Your task to perform on an android device: turn smart compose on in the gmail app Image 0: 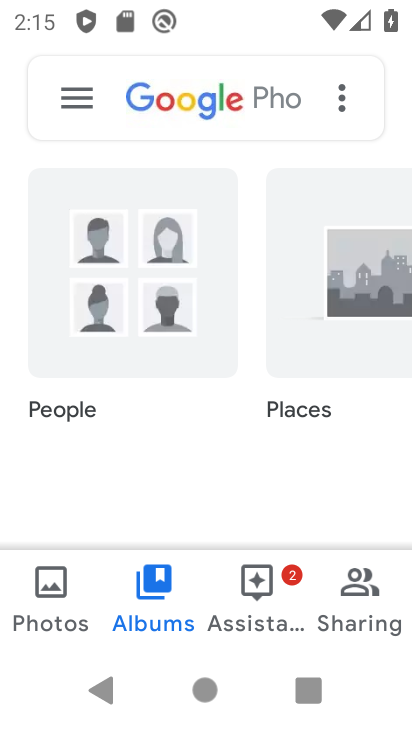
Step 0: press home button
Your task to perform on an android device: turn smart compose on in the gmail app Image 1: 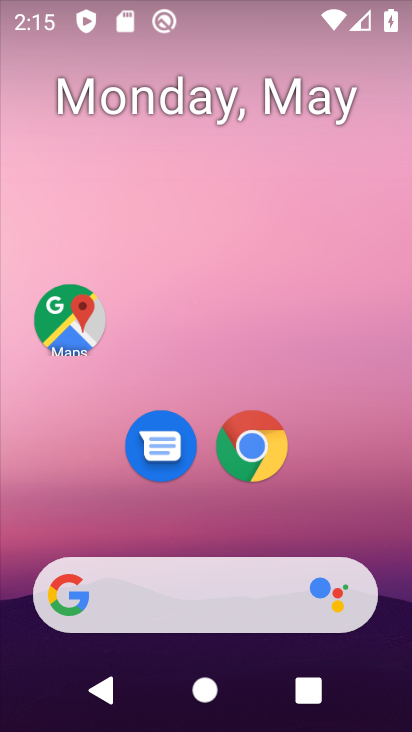
Step 1: drag from (327, 471) to (312, 57)
Your task to perform on an android device: turn smart compose on in the gmail app Image 2: 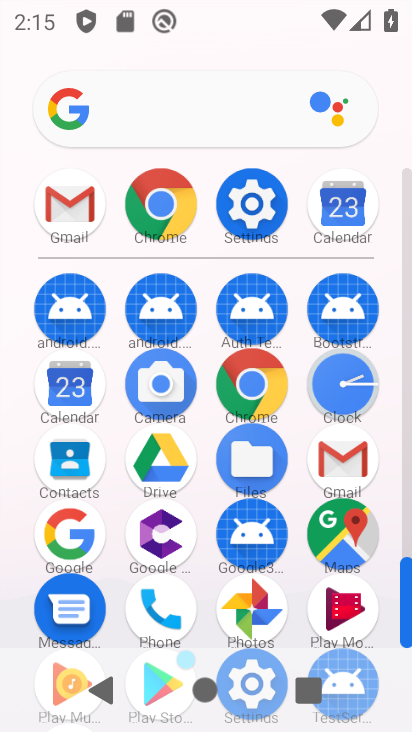
Step 2: click (245, 224)
Your task to perform on an android device: turn smart compose on in the gmail app Image 3: 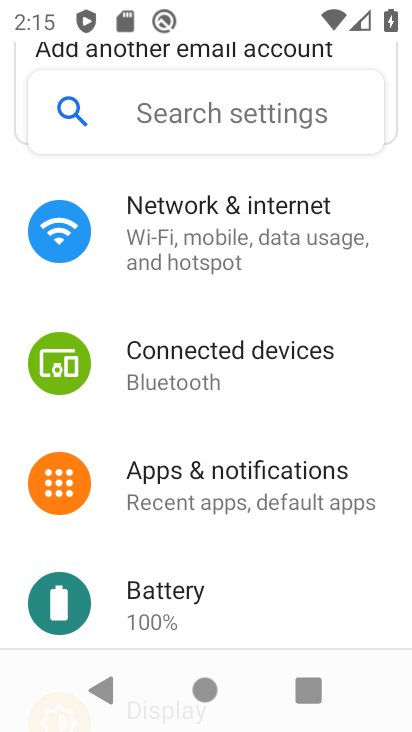
Step 3: drag from (253, 505) to (246, 192)
Your task to perform on an android device: turn smart compose on in the gmail app Image 4: 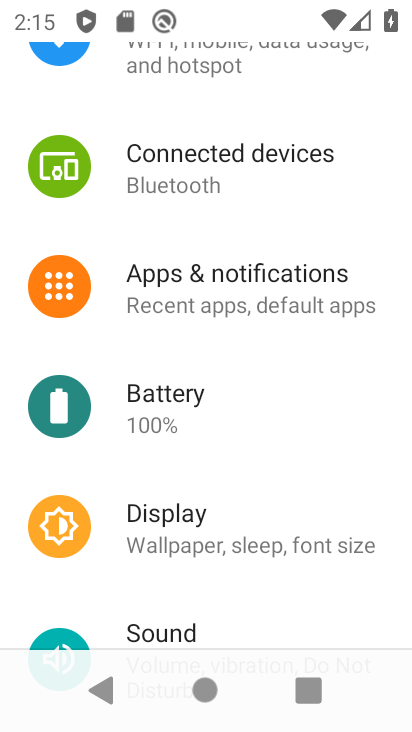
Step 4: press home button
Your task to perform on an android device: turn smart compose on in the gmail app Image 5: 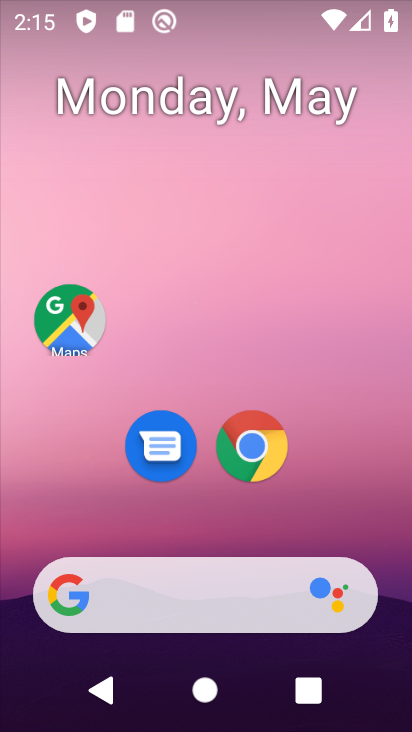
Step 5: drag from (326, 518) to (310, 172)
Your task to perform on an android device: turn smart compose on in the gmail app Image 6: 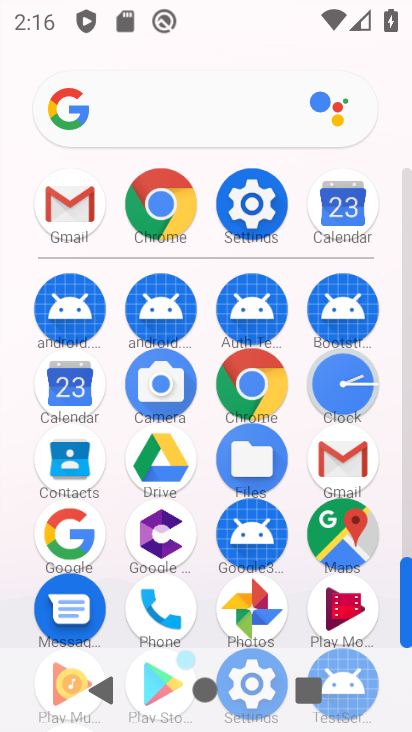
Step 6: click (338, 463)
Your task to perform on an android device: turn smart compose on in the gmail app Image 7: 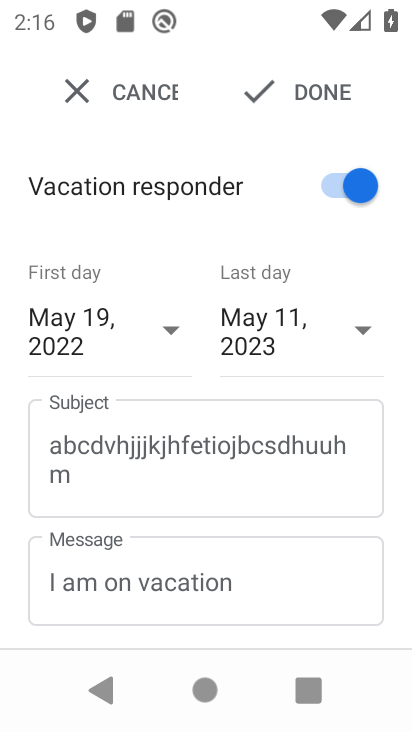
Step 7: click (68, 101)
Your task to perform on an android device: turn smart compose on in the gmail app Image 8: 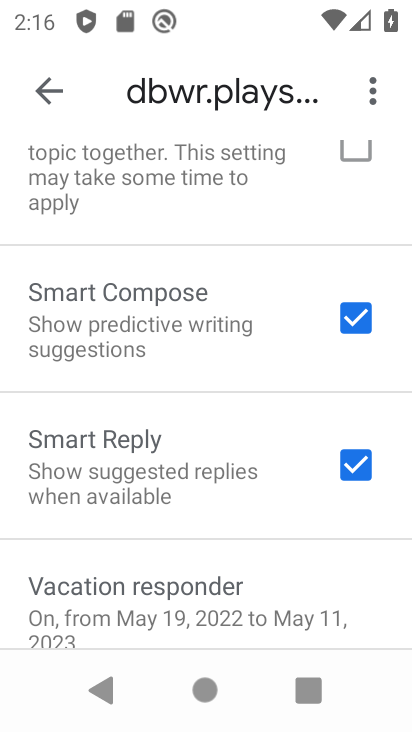
Step 8: task complete